Your task to perform on an android device: What's on my calendar tomorrow? Image 0: 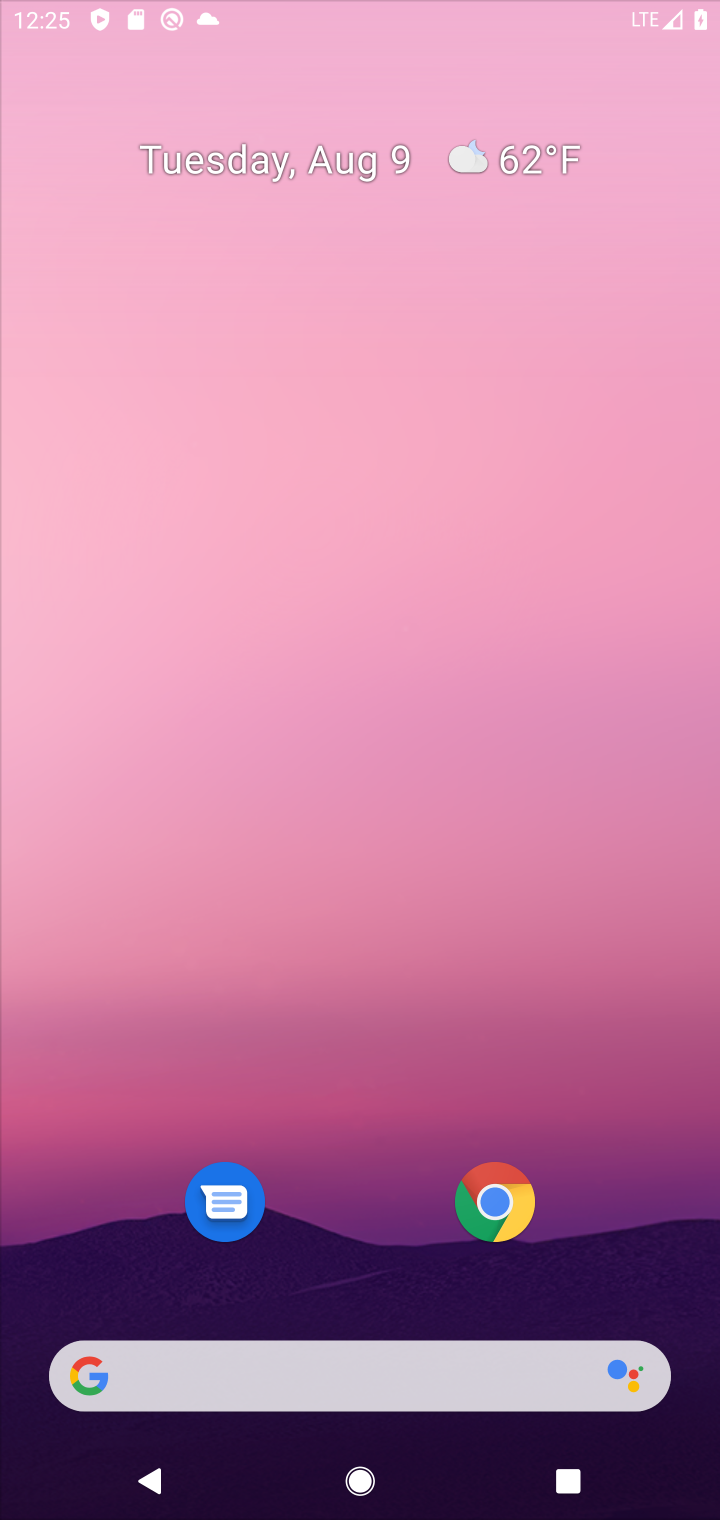
Step 0: press home button
Your task to perform on an android device: What's on my calendar tomorrow? Image 1: 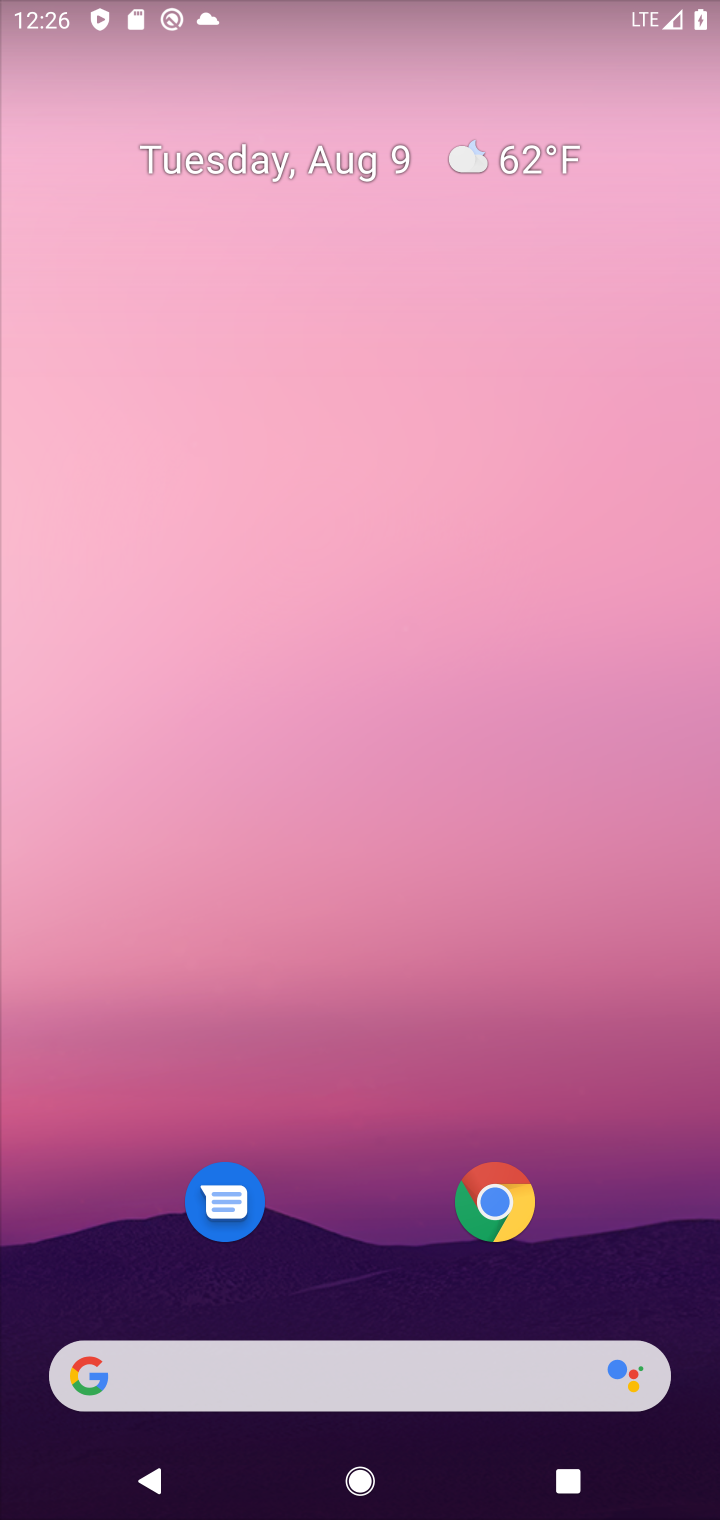
Step 1: drag from (392, 799) to (429, 88)
Your task to perform on an android device: What's on my calendar tomorrow? Image 2: 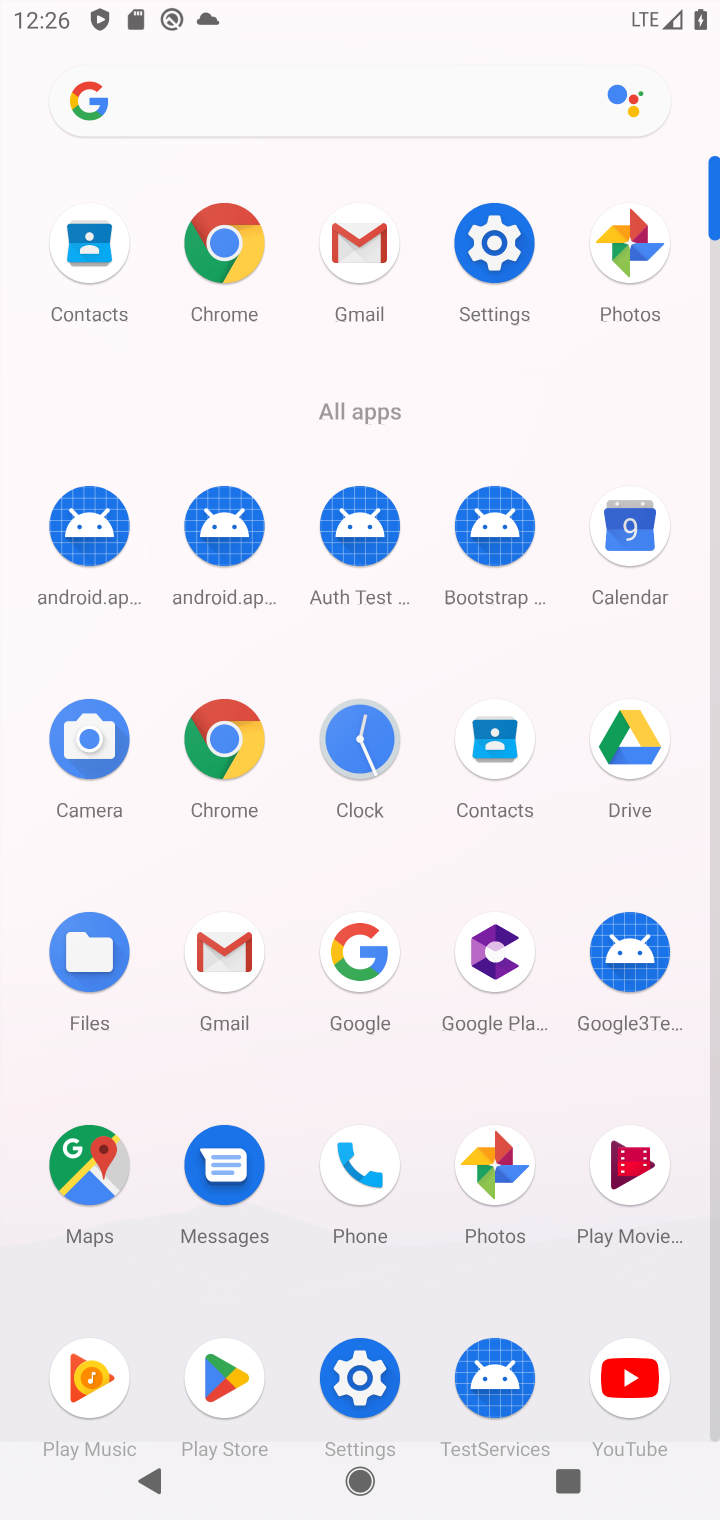
Step 2: click (650, 548)
Your task to perform on an android device: What's on my calendar tomorrow? Image 3: 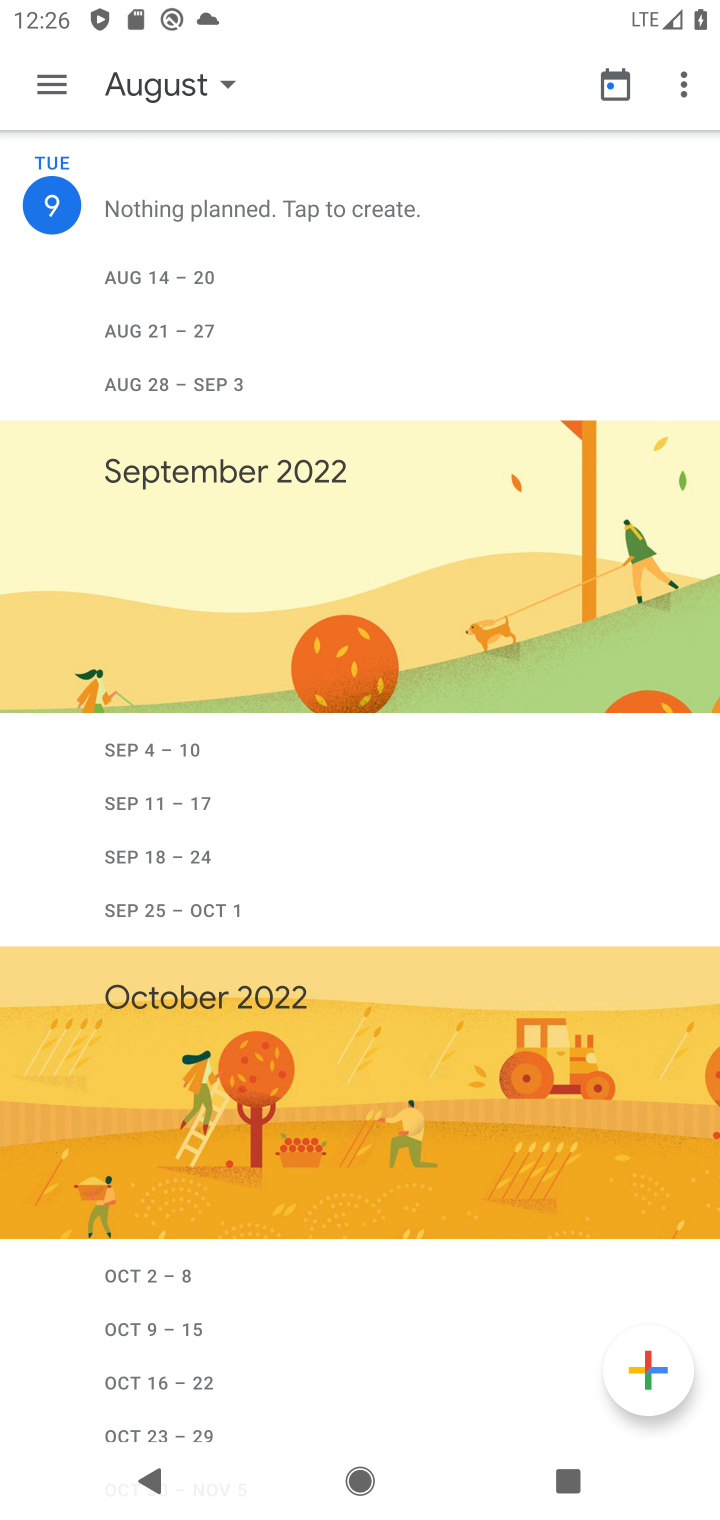
Step 3: click (179, 78)
Your task to perform on an android device: What's on my calendar tomorrow? Image 4: 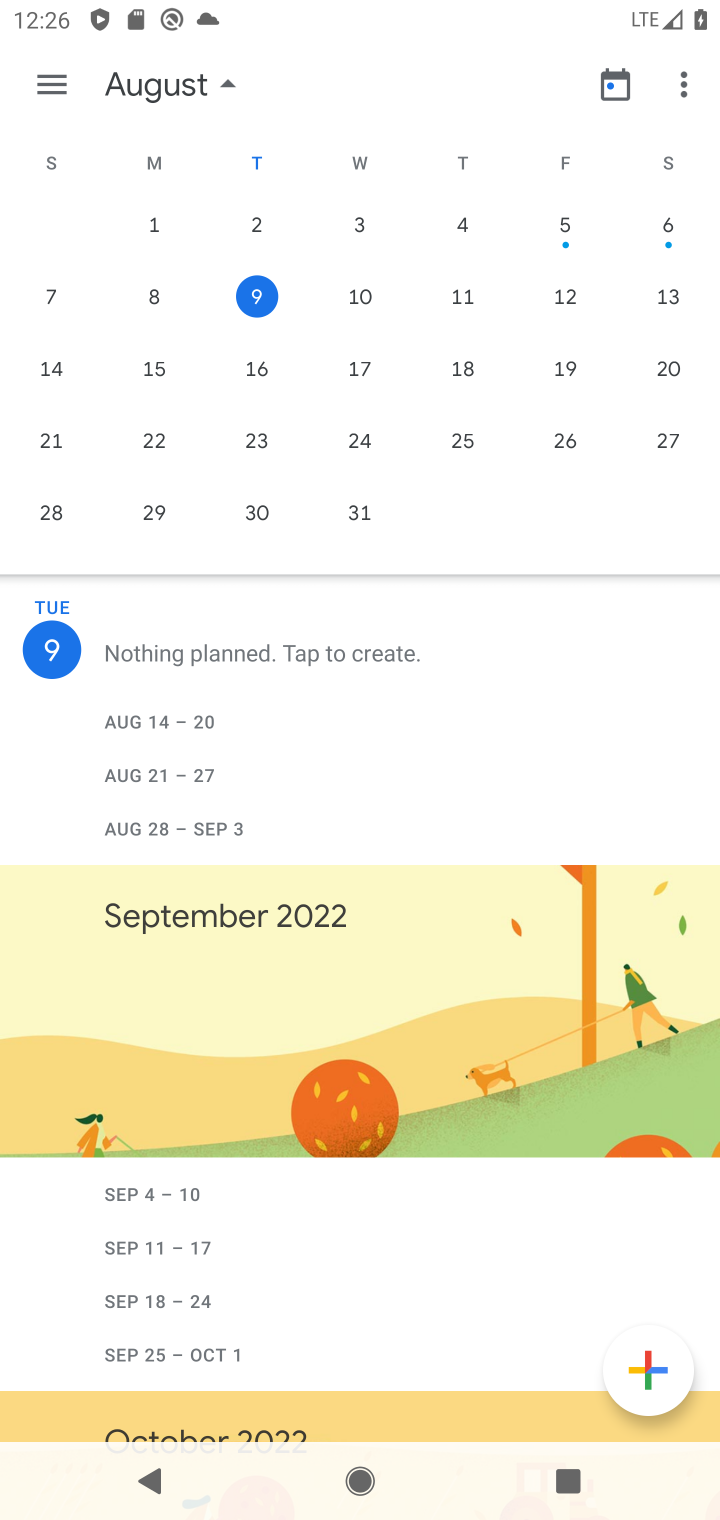
Step 4: click (359, 300)
Your task to perform on an android device: What's on my calendar tomorrow? Image 5: 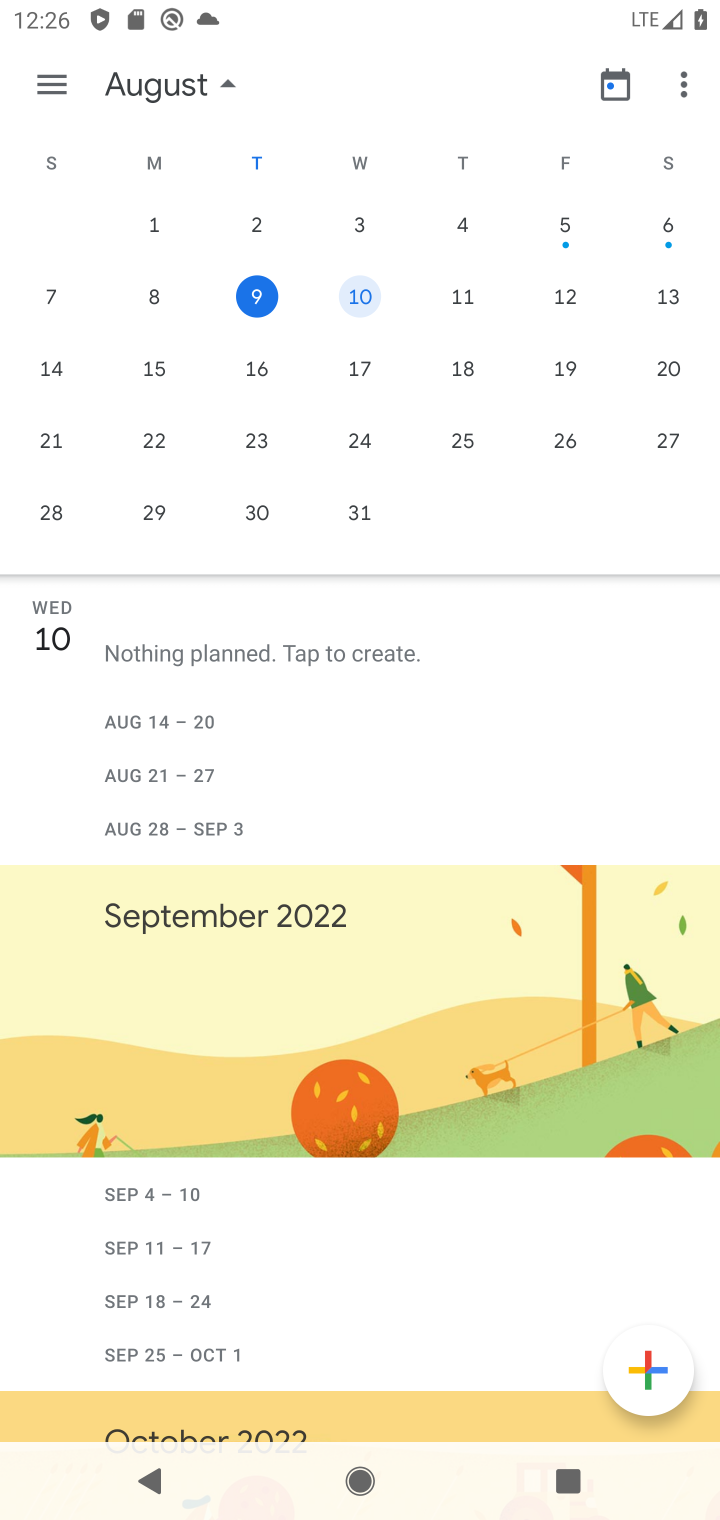
Step 5: task complete